Your task to perform on an android device: empty trash in google photos Image 0: 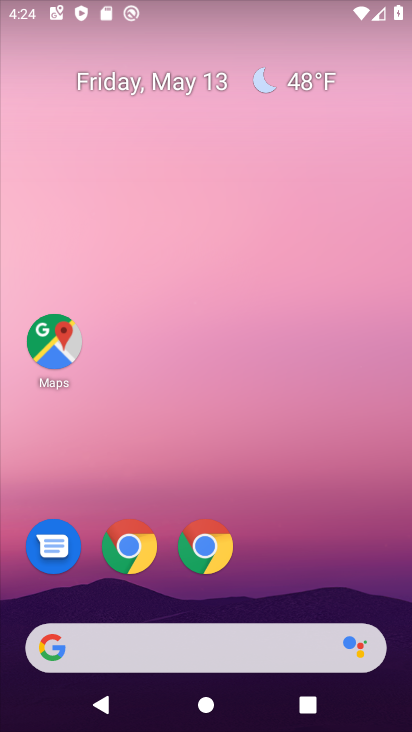
Step 0: drag from (300, 514) to (200, 254)
Your task to perform on an android device: empty trash in google photos Image 1: 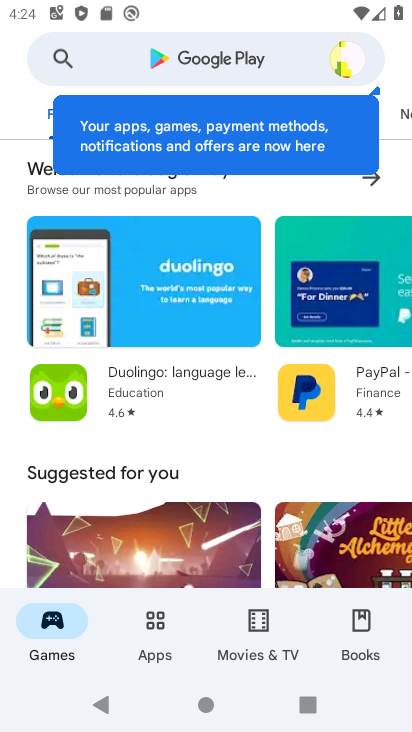
Step 1: press back button
Your task to perform on an android device: empty trash in google photos Image 2: 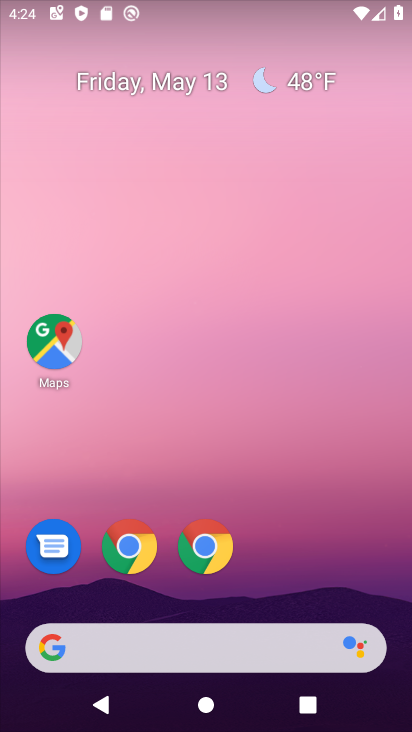
Step 2: press home button
Your task to perform on an android device: empty trash in google photos Image 3: 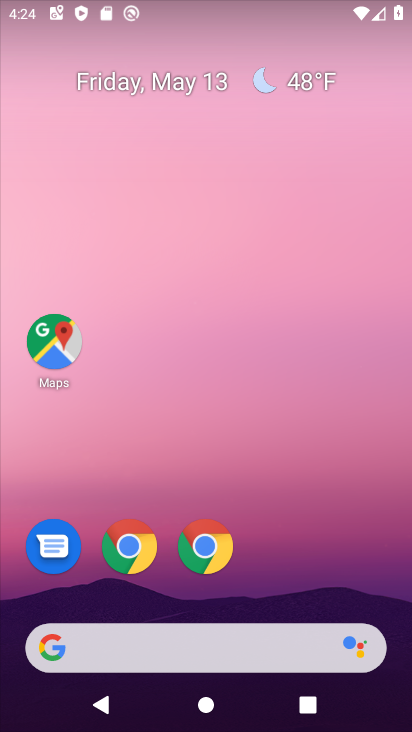
Step 3: drag from (313, 592) to (133, 72)
Your task to perform on an android device: empty trash in google photos Image 4: 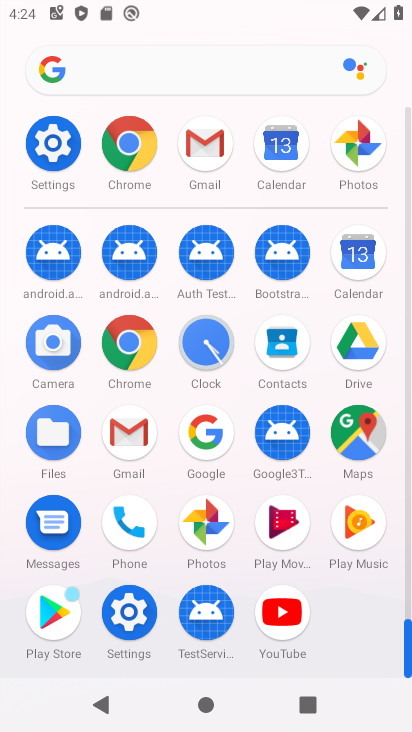
Step 4: click (210, 519)
Your task to perform on an android device: empty trash in google photos Image 5: 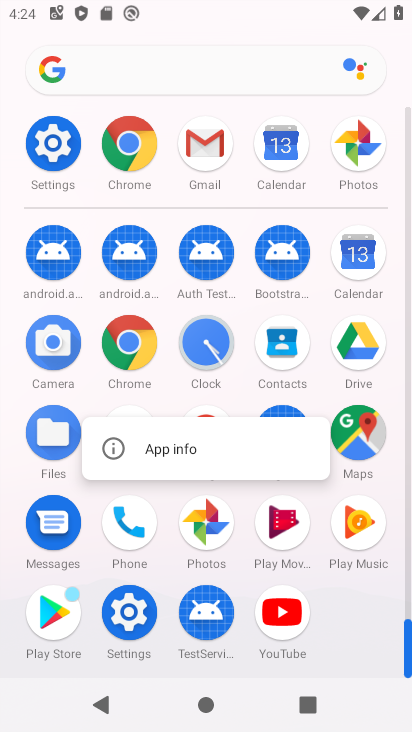
Step 5: click (186, 430)
Your task to perform on an android device: empty trash in google photos Image 6: 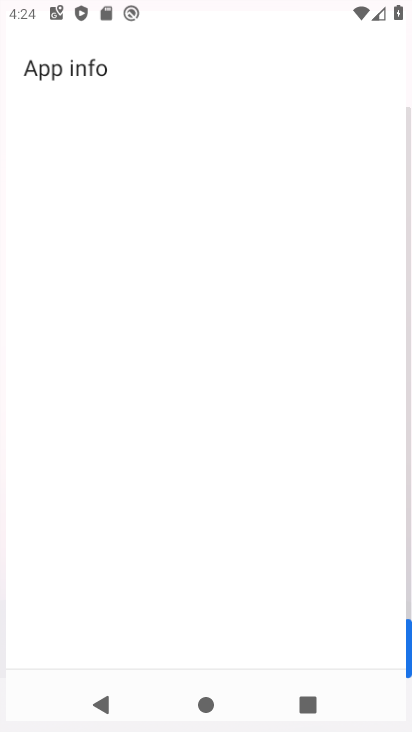
Step 6: click (215, 533)
Your task to perform on an android device: empty trash in google photos Image 7: 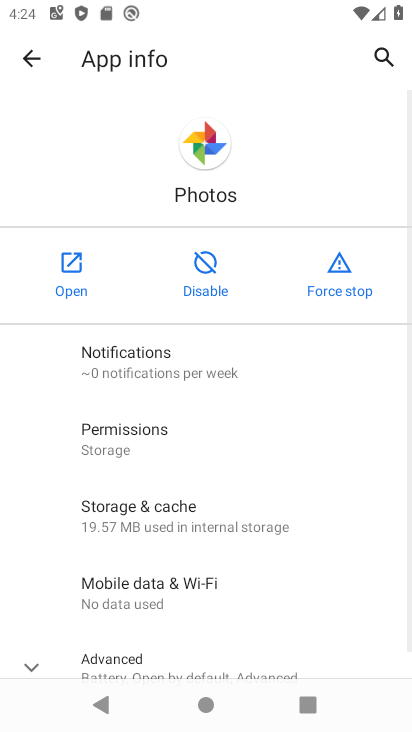
Step 7: click (30, 62)
Your task to perform on an android device: empty trash in google photos Image 8: 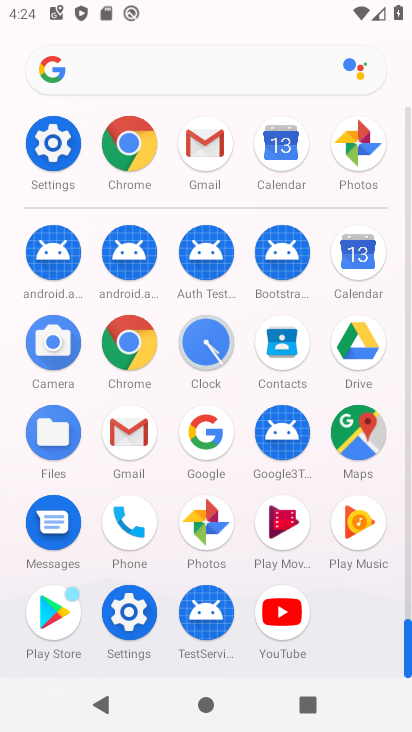
Step 8: click (203, 519)
Your task to perform on an android device: empty trash in google photos Image 9: 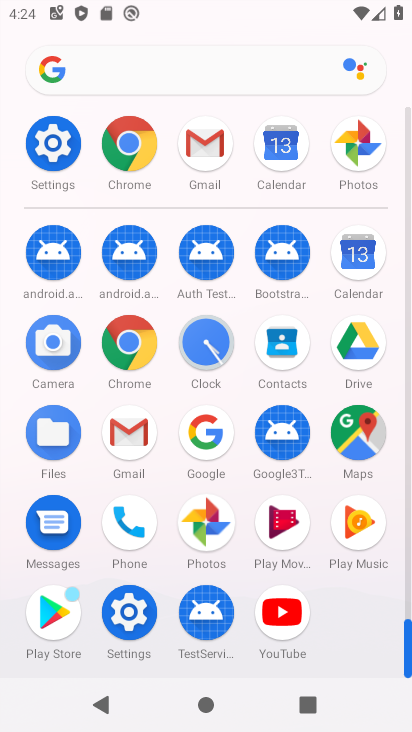
Step 9: click (200, 512)
Your task to perform on an android device: empty trash in google photos Image 10: 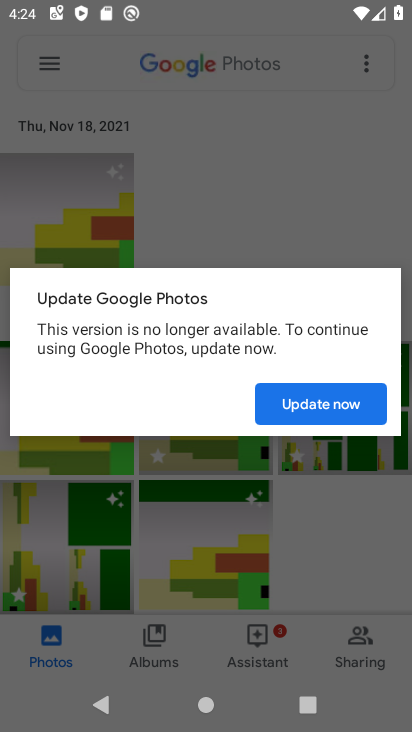
Step 10: click (290, 492)
Your task to perform on an android device: empty trash in google photos Image 11: 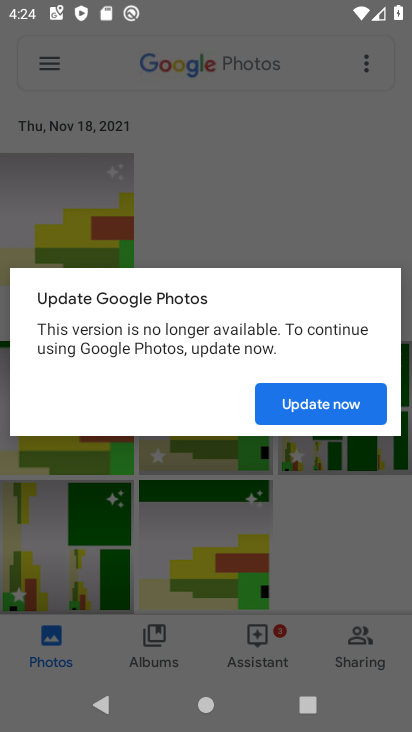
Step 11: click (332, 408)
Your task to perform on an android device: empty trash in google photos Image 12: 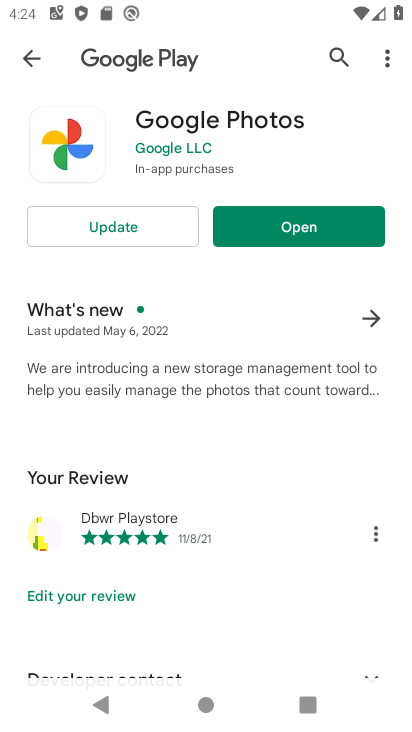
Step 12: click (110, 237)
Your task to perform on an android device: empty trash in google photos Image 13: 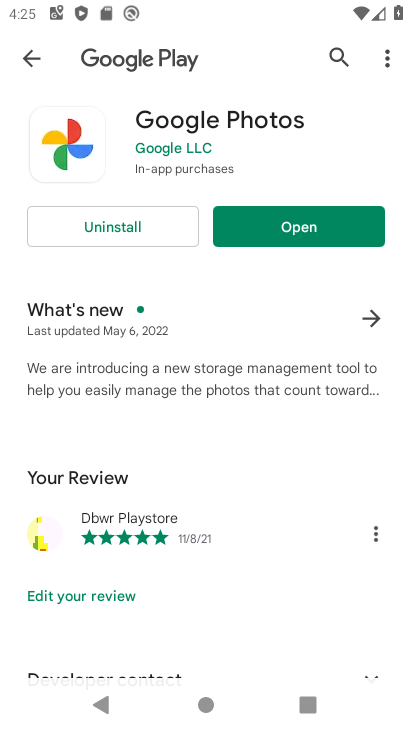
Step 13: click (331, 229)
Your task to perform on an android device: empty trash in google photos Image 14: 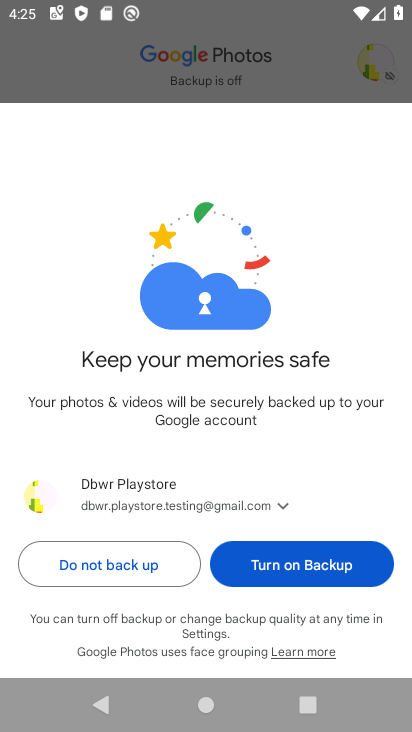
Step 14: task complete